Your task to perform on an android device: move a message to another label in the gmail app Image 0: 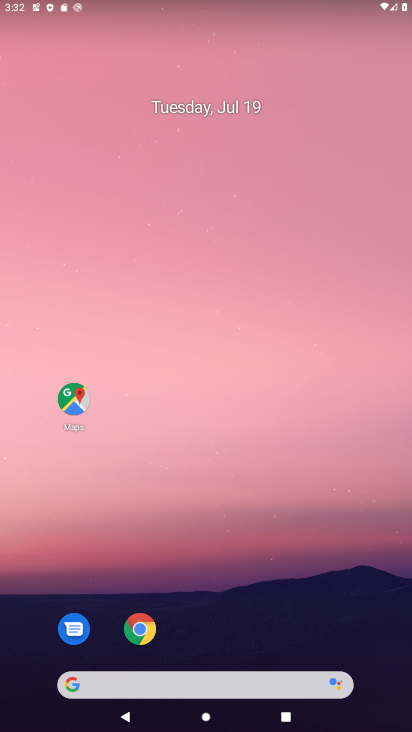
Step 0: drag from (193, 614) to (176, 248)
Your task to perform on an android device: move a message to another label in the gmail app Image 1: 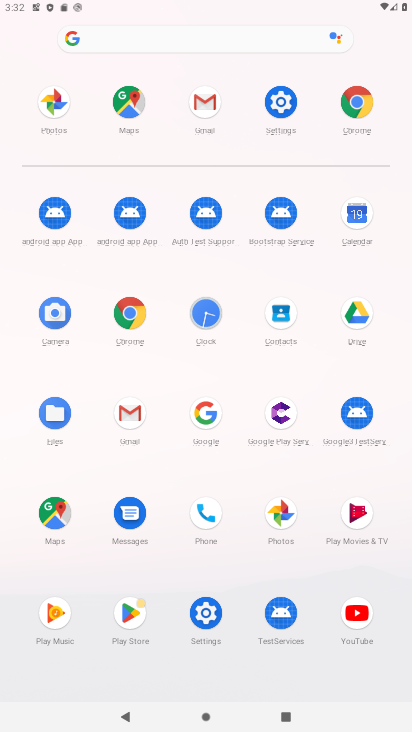
Step 1: click (124, 413)
Your task to perform on an android device: move a message to another label in the gmail app Image 2: 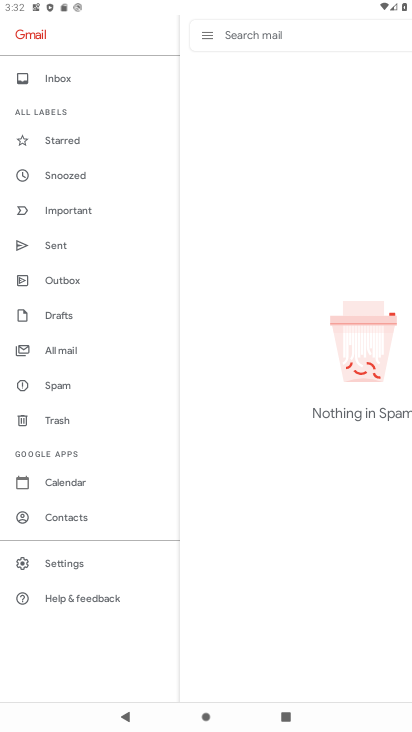
Step 2: task complete